Your task to perform on an android device: Go to network settings Image 0: 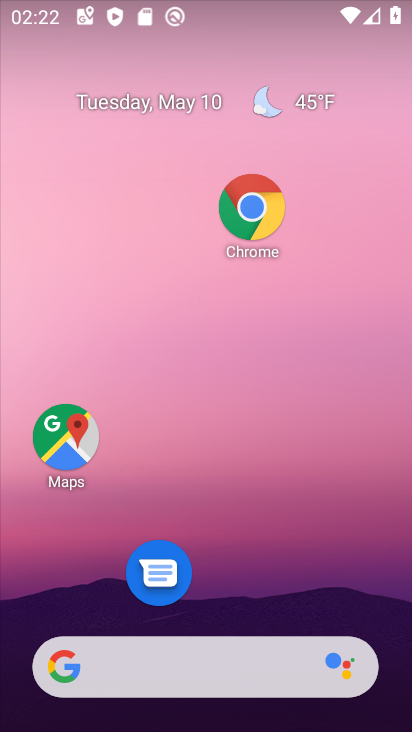
Step 0: drag from (246, 592) to (410, 116)
Your task to perform on an android device: Go to network settings Image 1: 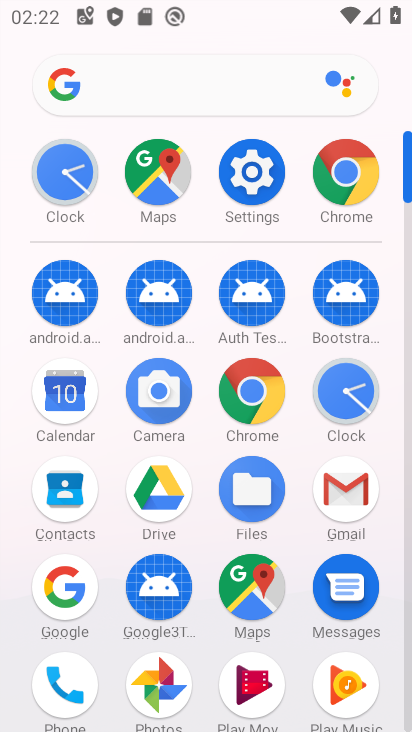
Step 1: click (262, 187)
Your task to perform on an android device: Go to network settings Image 2: 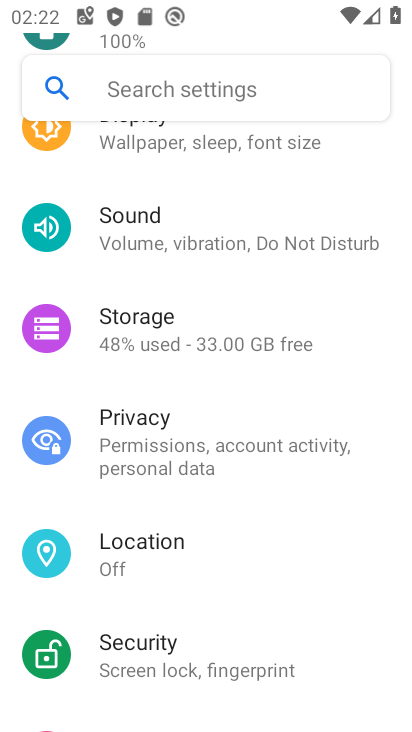
Step 2: drag from (208, 212) to (197, 726)
Your task to perform on an android device: Go to network settings Image 3: 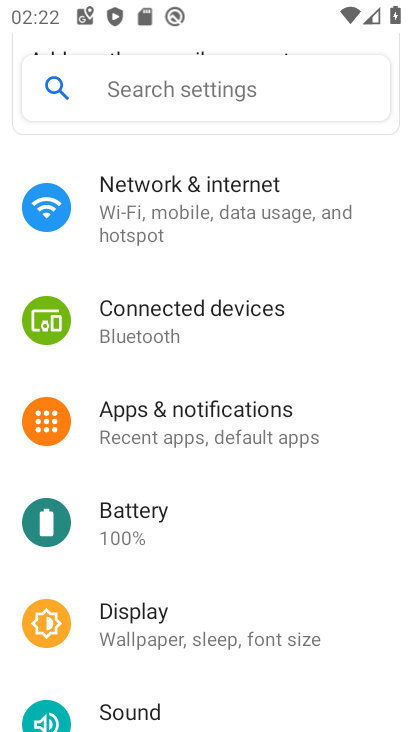
Step 3: click (230, 217)
Your task to perform on an android device: Go to network settings Image 4: 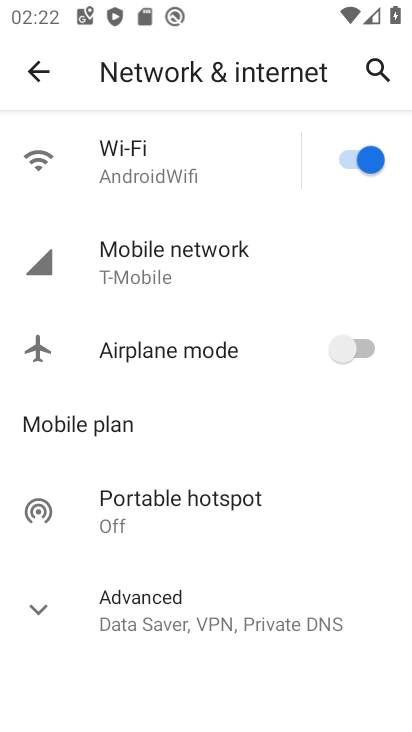
Step 4: click (216, 259)
Your task to perform on an android device: Go to network settings Image 5: 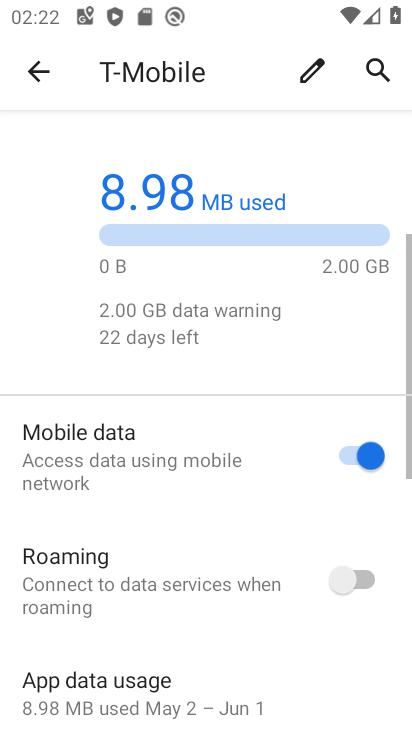
Step 5: task complete